Your task to perform on an android device: set an alarm Image 0: 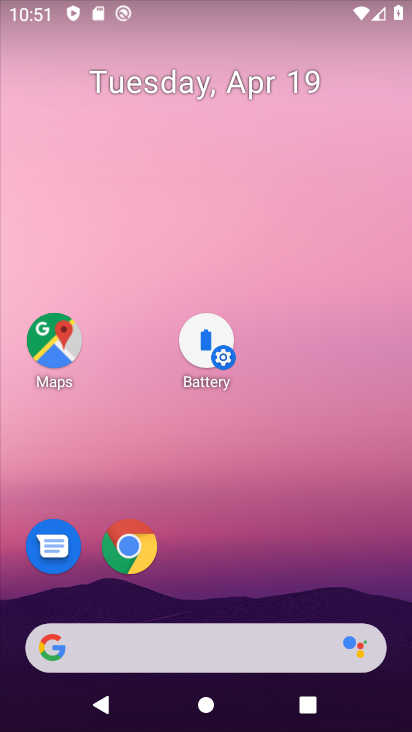
Step 0: drag from (274, 570) to (342, 56)
Your task to perform on an android device: set an alarm Image 1: 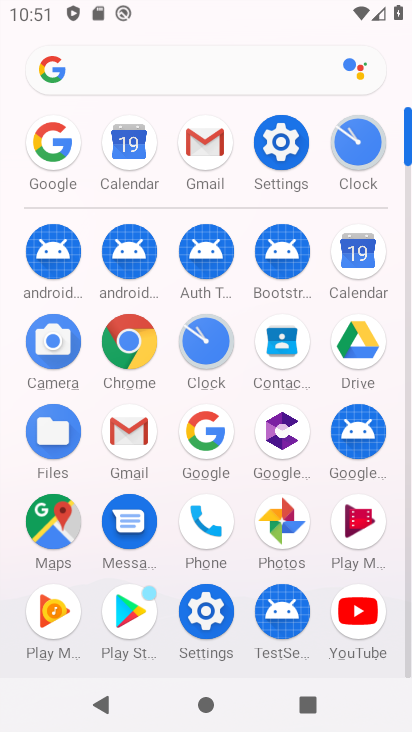
Step 1: click (212, 339)
Your task to perform on an android device: set an alarm Image 2: 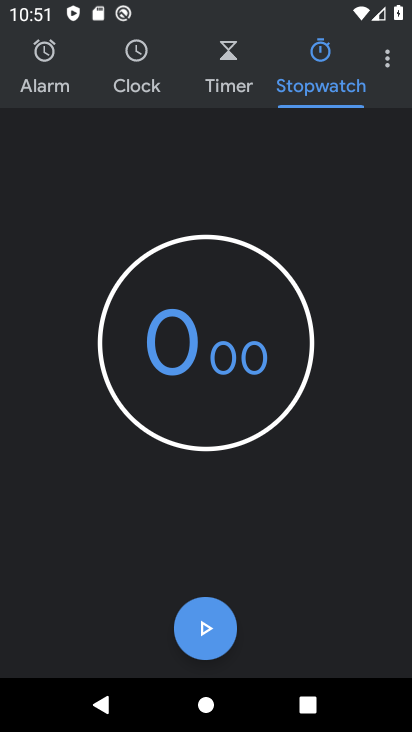
Step 2: click (52, 72)
Your task to perform on an android device: set an alarm Image 3: 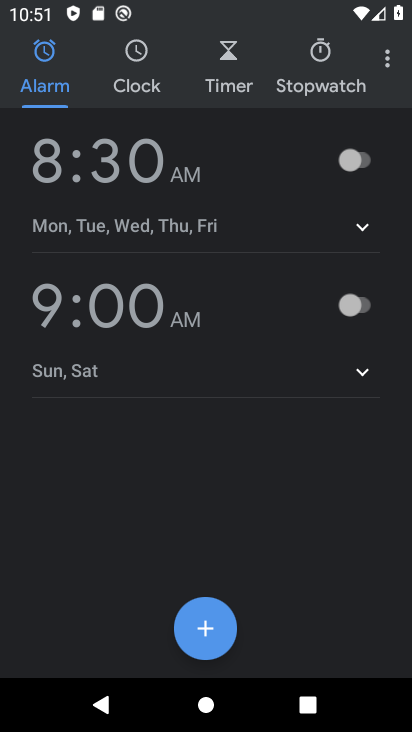
Step 3: click (364, 160)
Your task to perform on an android device: set an alarm Image 4: 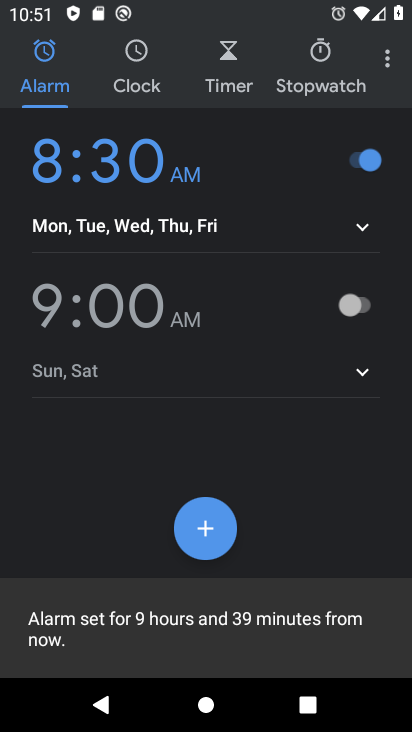
Step 4: task complete